Your task to perform on an android device: empty trash in the gmail app Image 0: 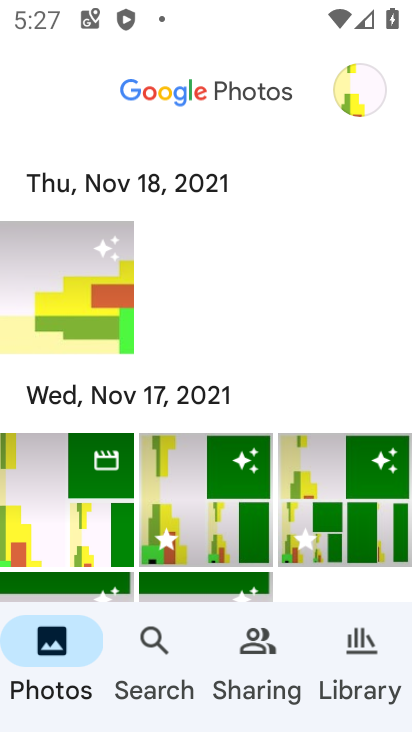
Step 0: press home button
Your task to perform on an android device: empty trash in the gmail app Image 1: 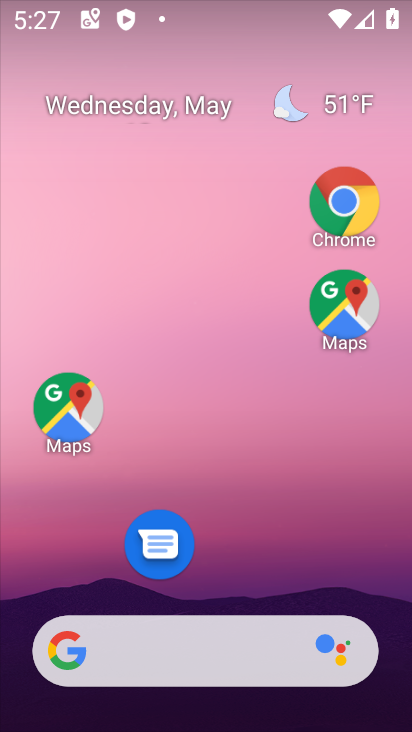
Step 1: drag from (243, 538) to (236, 105)
Your task to perform on an android device: empty trash in the gmail app Image 2: 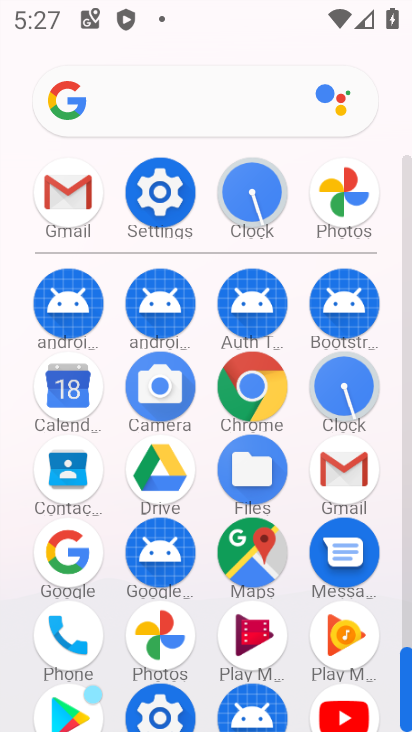
Step 2: click (64, 199)
Your task to perform on an android device: empty trash in the gmail app Image 3: 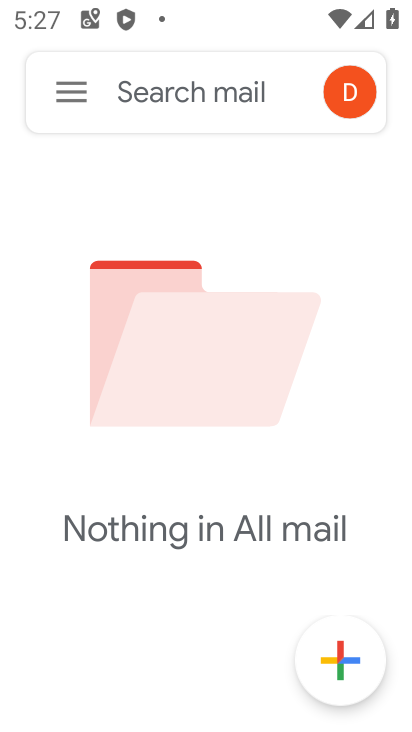
Step 3: click (77, 92)
Your task to perform on an android device: empty trash in the gmail app Image 4: 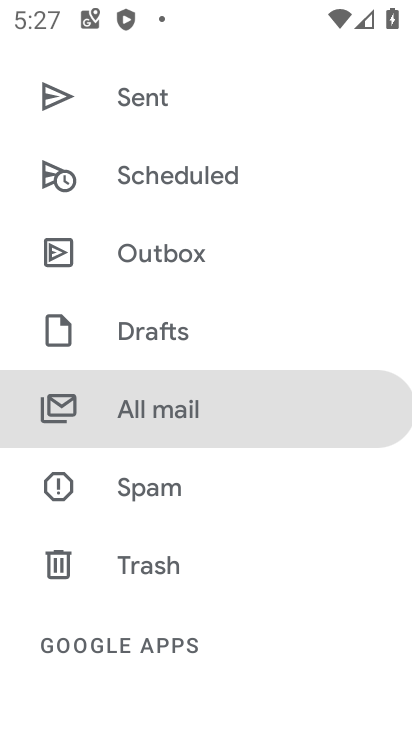
Step 4: click (148, 562)
Your task to perform on an android device: empty trash in the gmail app Image 5: 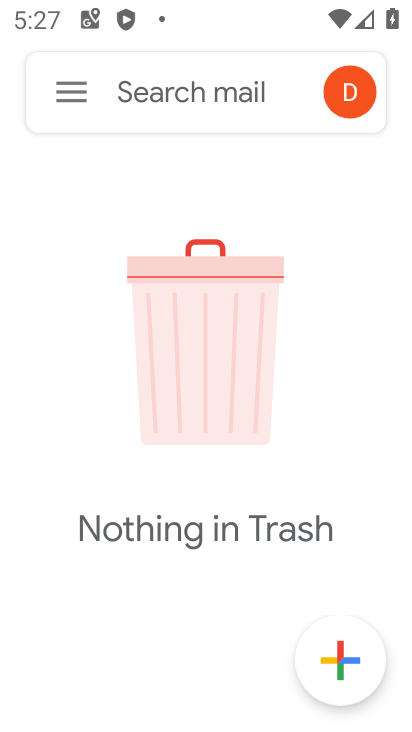
Step 5: task complete